Your task to perform on an android device: change your default location settings in chrome Image 0: 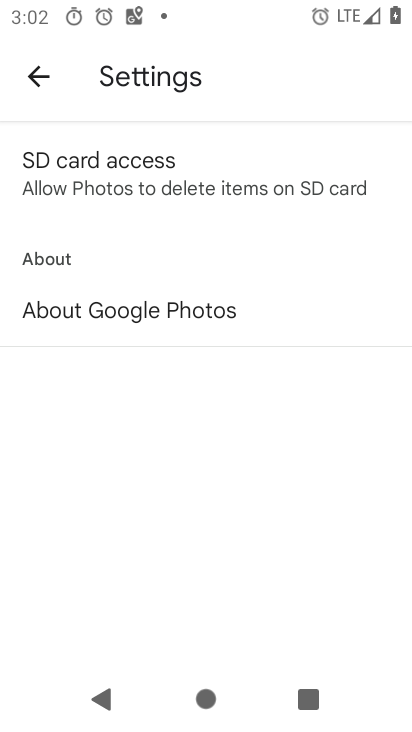
Step 0: press home button
Your task to perform on an android device: change your default location settings in chrome Image 1: 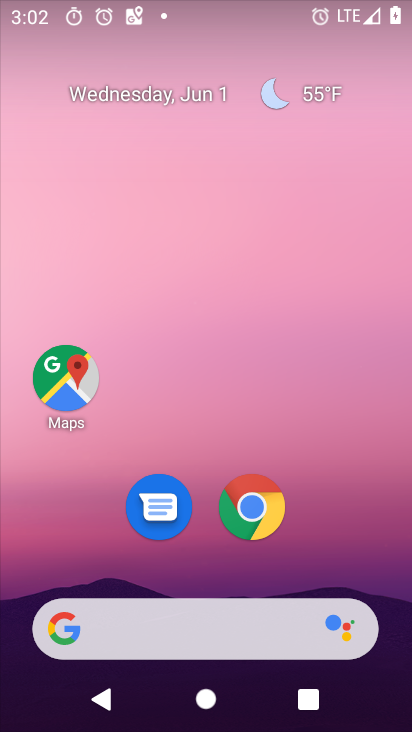
Step 1: click (251, 511)
Your task to perform on an android device: change your default location settings in chrome Image 2: 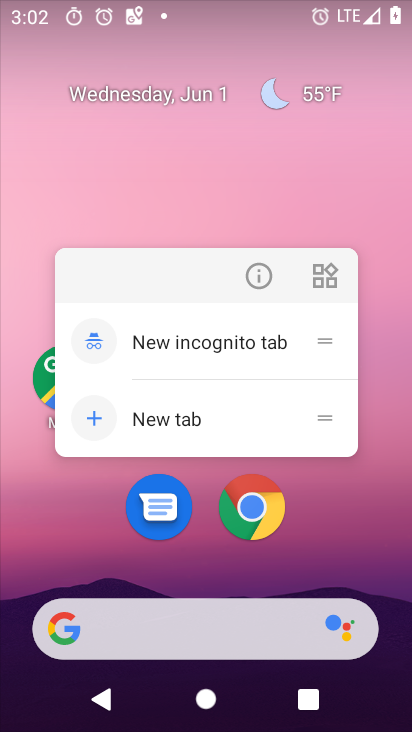
Step 2: click (251, 511)
Your task to perform on an android device: change your default location settings in chrome Image 3: 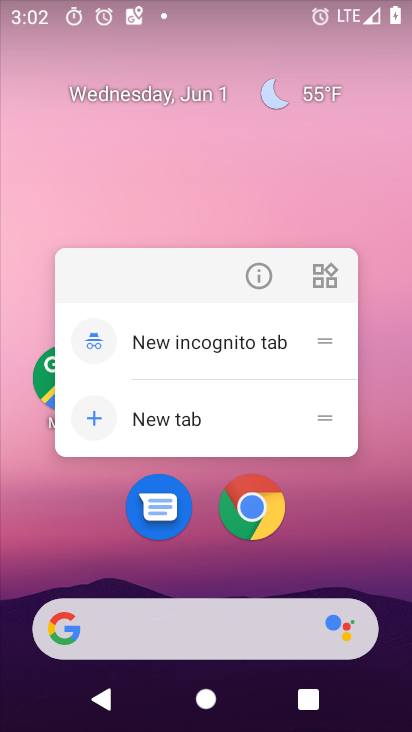
Step 3: click (251, 511)
Your task to perform on an android device: change your default location settings in chrome Image 4: 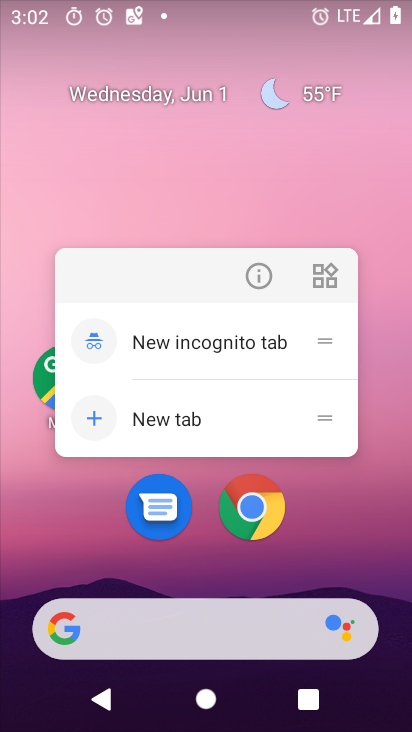
Step 4: click (251, 511)
Your task to perform on an android device: change your default location settings in chrome Image 5: 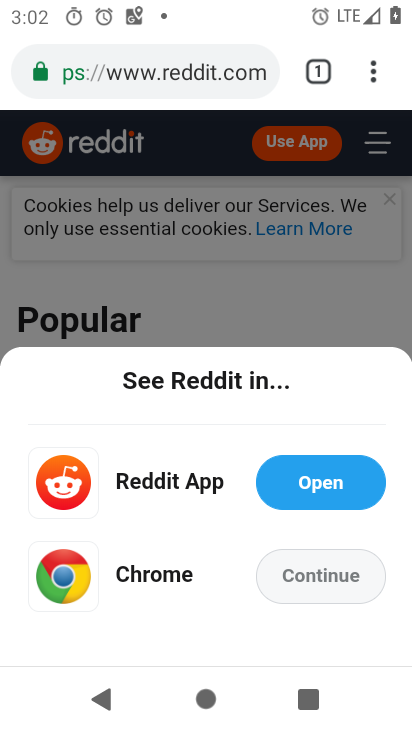
Step 5: click (374, 74)
Your task to perform on an android device: change your default location settings in chrome Image 6: 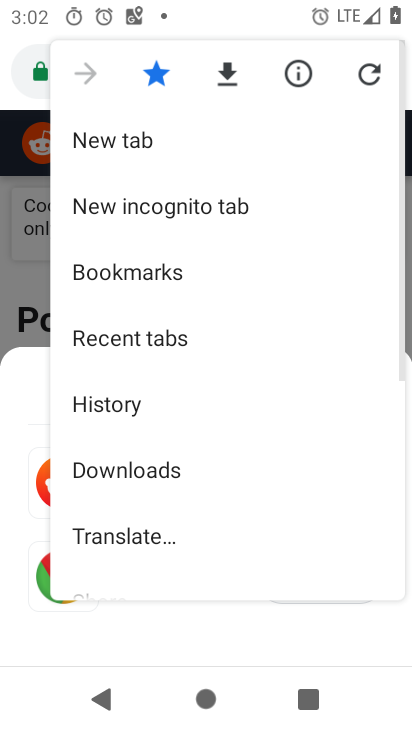
Step 6: drag from (181, 517) to (218, 191)
Your task to perform on an android device: change your default location settings in chrome Image 7: 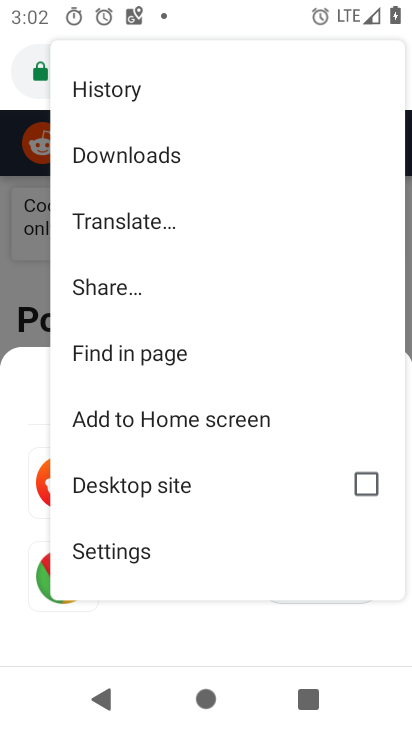
Step 7: click (127, 547)
Your task to perform on an android device: change your default location settings in chrome Image 8: 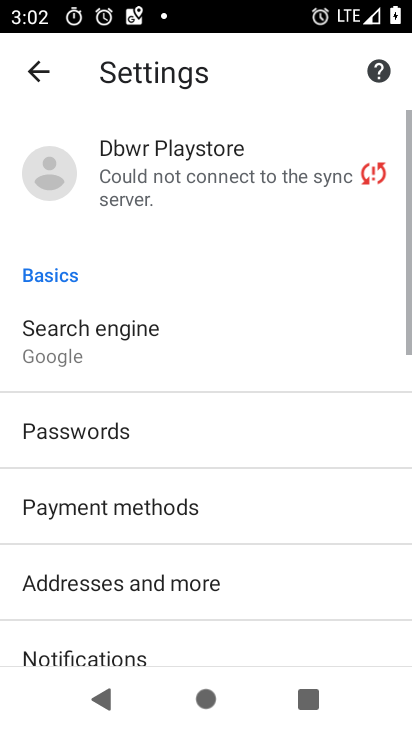
Step 8: drag from (175, 533) to (174, 189)
Your task to perform on an android device: change your default location settings in chrome Image 9: 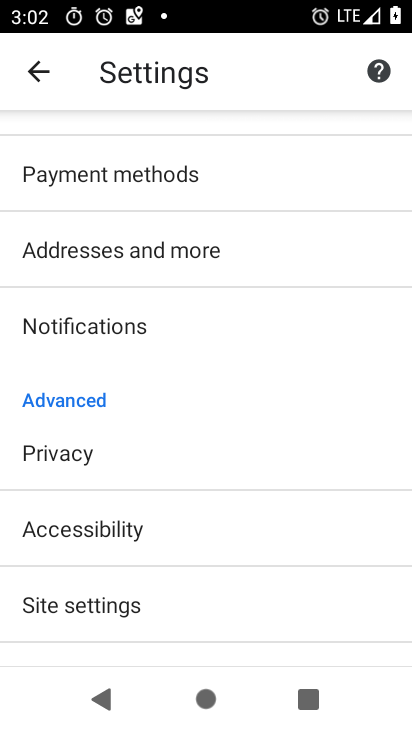
Step 9: drag from (80, 553) to (128, 282)
Your task to perform on an android device: change your default location settings in chrome Image 10: 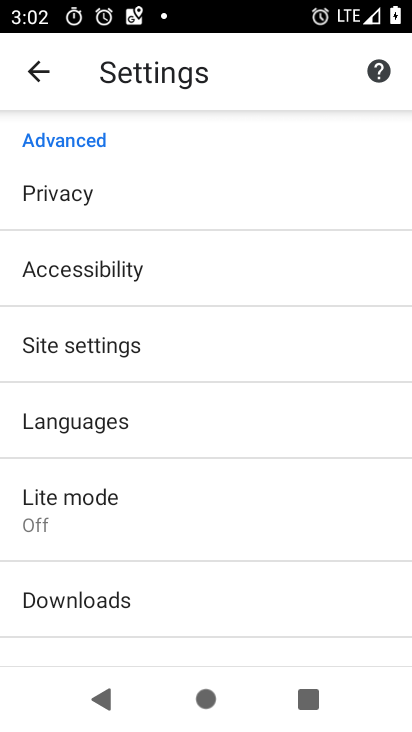
Step 10: click (73, 350)
Your task to perform on an android device: change your default location settings in chrome Image 11: 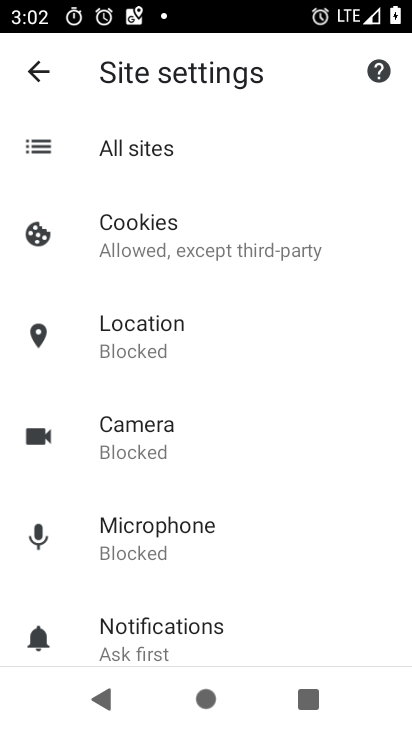
Step 11: click (115, 326)
Your task to perform on an android device: change your default location settings in chrome Image 12: 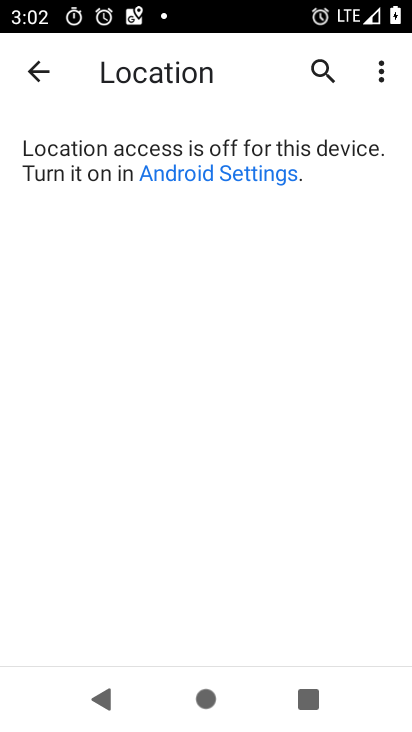
Step 12: click (236, 180)
Your task to perform on an android device: change your default location settings in chrome Image 13: 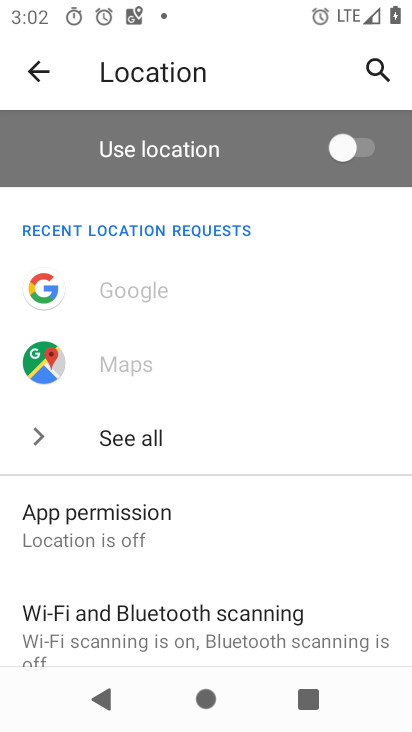
Step 13: task complete